Your task to perform on an android device: turn off data saver in the chrome app Image 0: 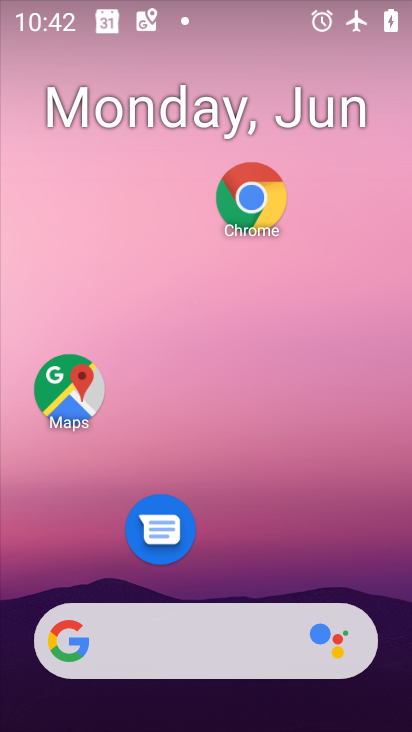
Step 0: click (259, 224)
Your task to perform on an android device: turn off data saver in the chrome app Image 1: 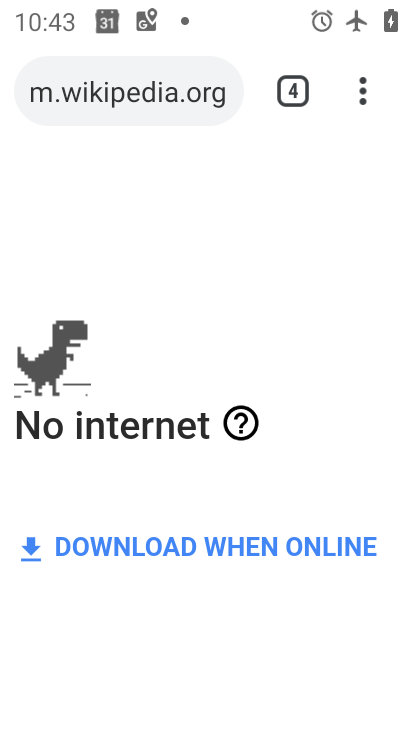
Step 1: click (353, 109)
Your task to perform on an android device: turn off data saver in the chrome app Image 2: 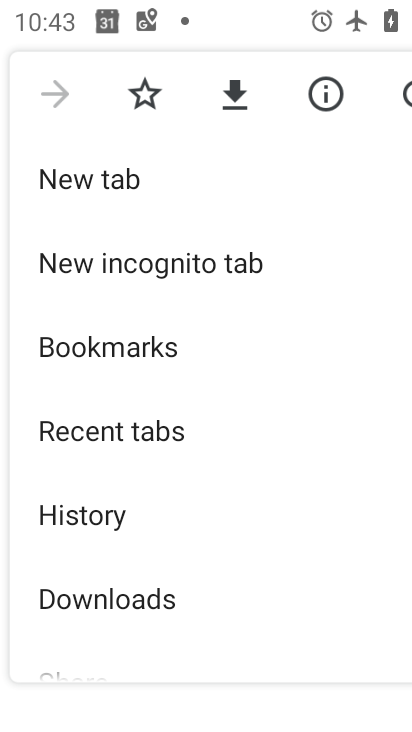
Step 2: drag from (234, 586) to (259, 291)
Your task to perform on an android device: turn off data saver in the chrome app Image 3: 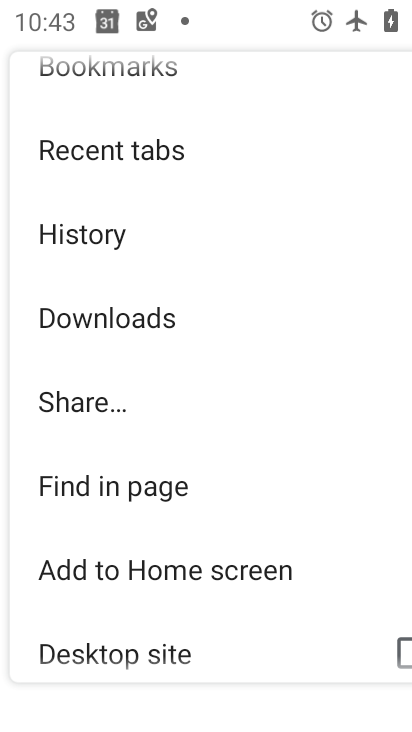
Step 3: drag from (204, 567) to (222, 267)
Your task to perform on an android device: turn off data saver in the chrome app Image 4: 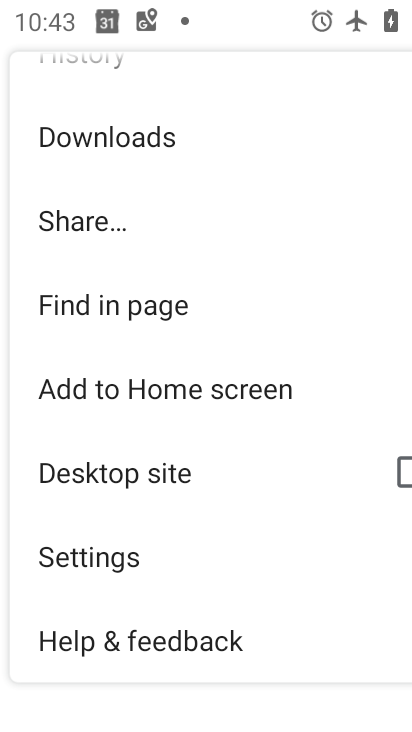
Step 4: click (131, 560)
Your task to perform on an android device: turn off data saver in the chrome app Image 5: 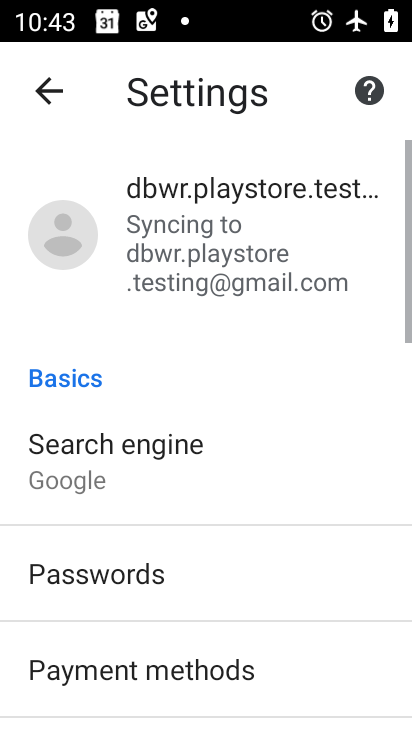
Step 5: drag from (192, 584) to (200, 332)
Your task to perform on an android device: turn off data saver in the chrome app Image 6: 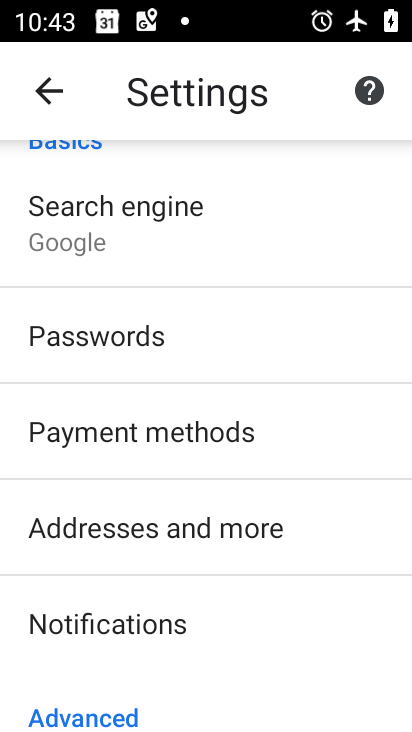
Step 6: drag from (253, 540) to (251, 343)
Your task to perform on an android device: turn off data saver in the chrome app Image 7: 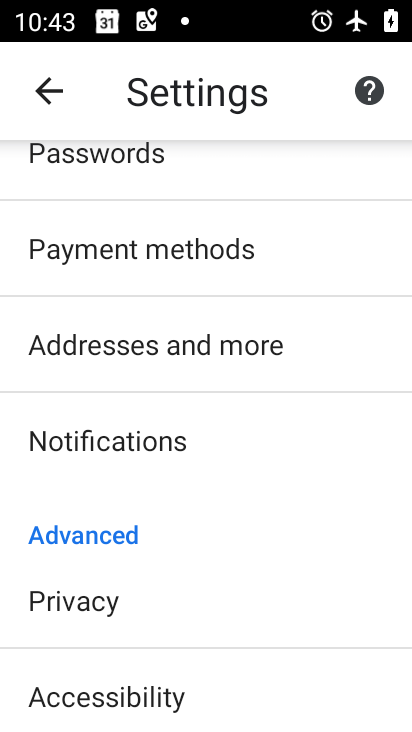
Step 7: drag from (235, 588) to (269, 375)
Your task to perform on an android device: turn off data saver in the chrome app Image 8: 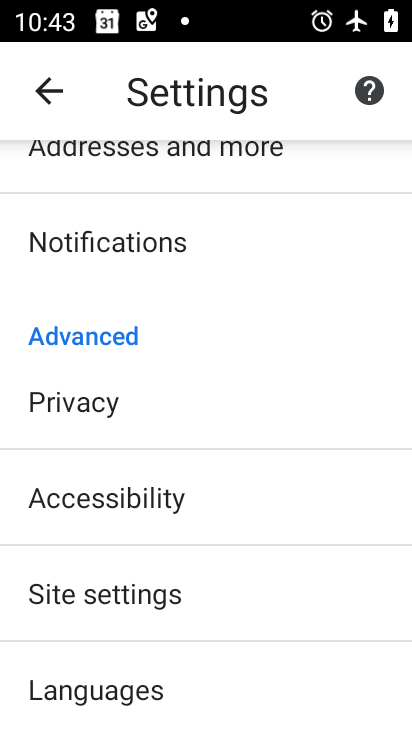
Step 8: drag from (257, 611) to (260, 447)
Your task to perform on an android device: turn off data saver in the chrome app Image 9: 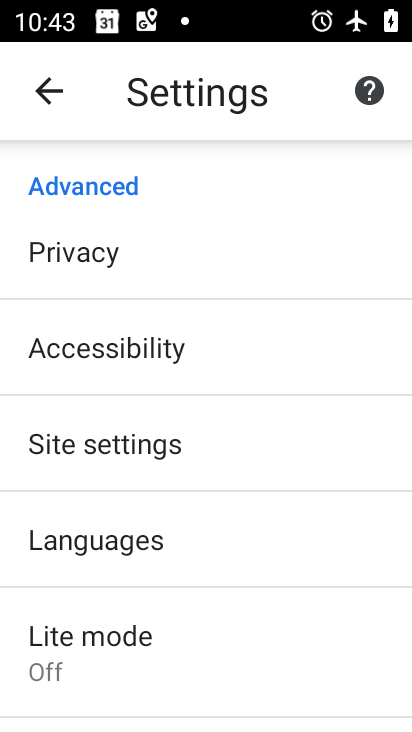
Step 9: click (183, 644)
Your task to perform on an android device: turn off data saver in the chrome app Image 10: 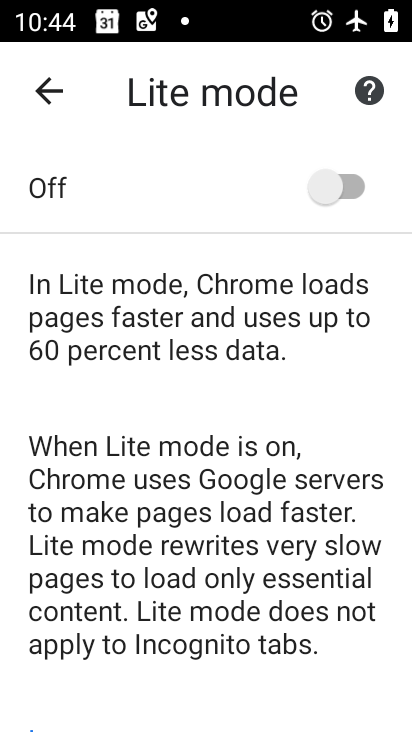
Step 10: task complete